Your task to perform on an android device: Open sound settings Image 0: 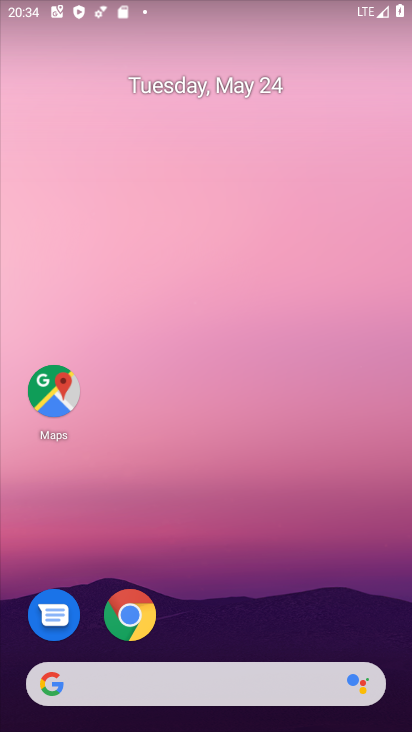
Step 0: drag from (248, 414) to (302, 97)
Your task to perform on an android device: Open sound settings Image 1: 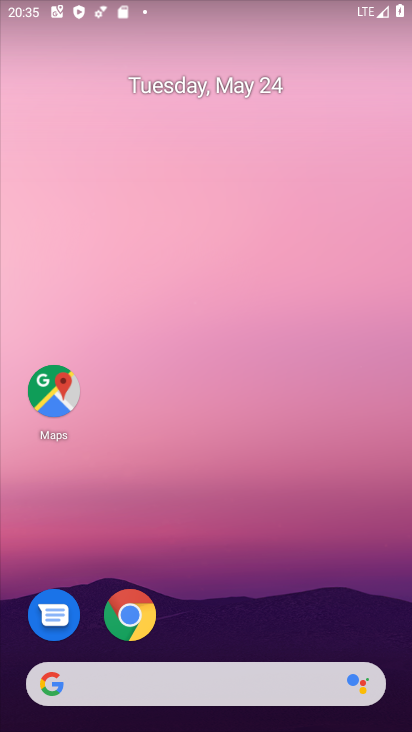
Step 1: drag from (187, 627) to (184, 262)
Your task to perform on an android device: Open sound settings Image 2: 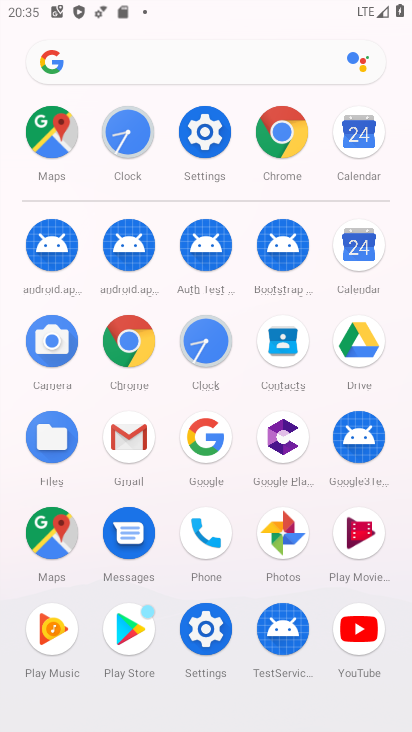
Step 2: click (207, 127)
Your task to perform on an android device: Open sound settings Image 3: 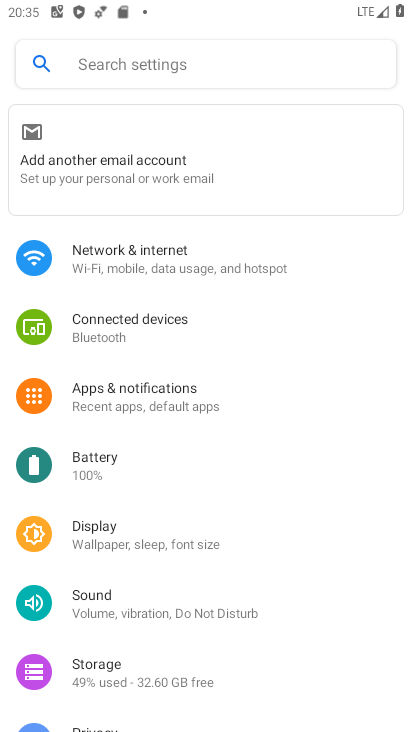
Step 3: click (119, 584)
Your task to perform on an android device: Open sound settings Image 4: 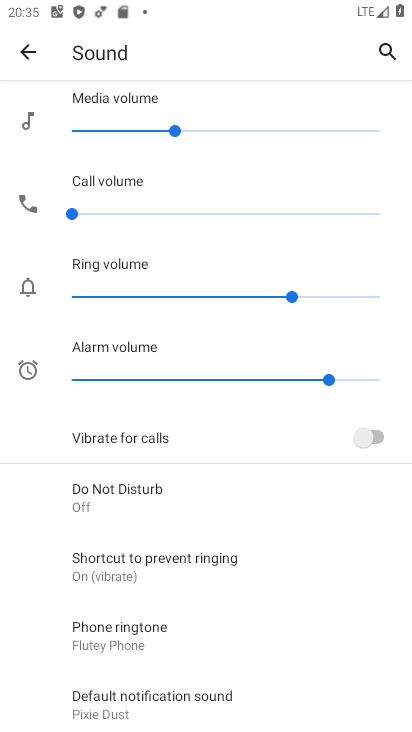
Step 4: task complete